Your task to perform on an android device: open chrome privacy settings Image 0: 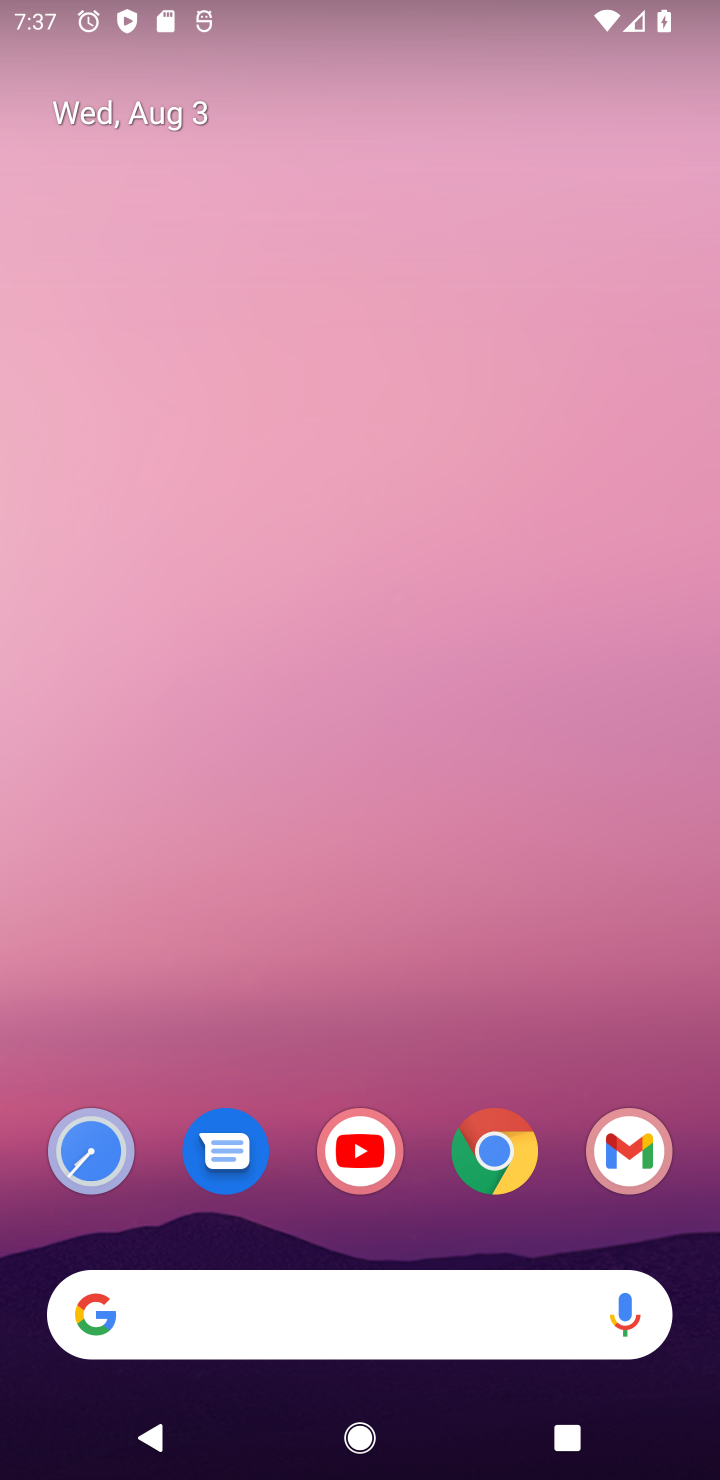
Step 0: click (495, 1154)
Your task to perform on an android device: open chrome privacy settings Image 1: 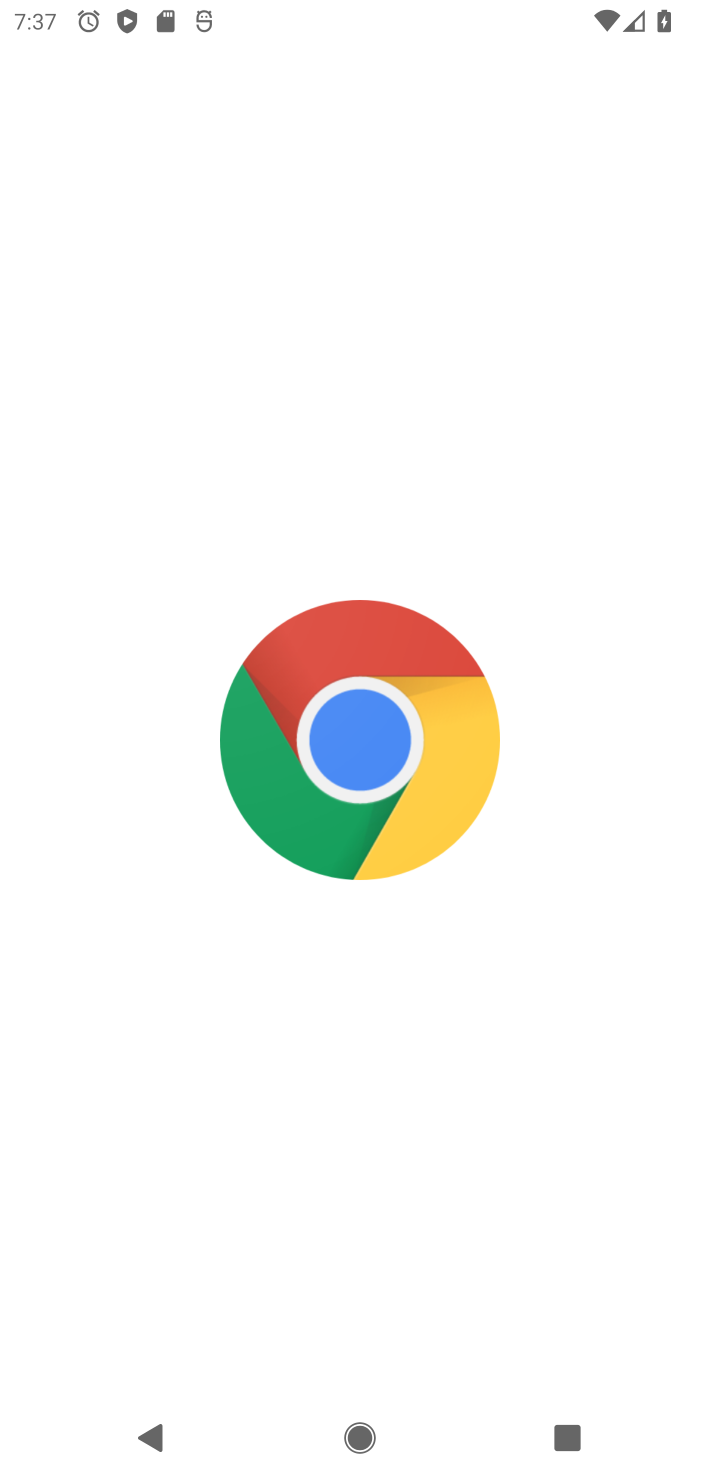
Step 1: click (495, 1156)
Your task to perform on an android device: open chrome privacy settings Image 2: 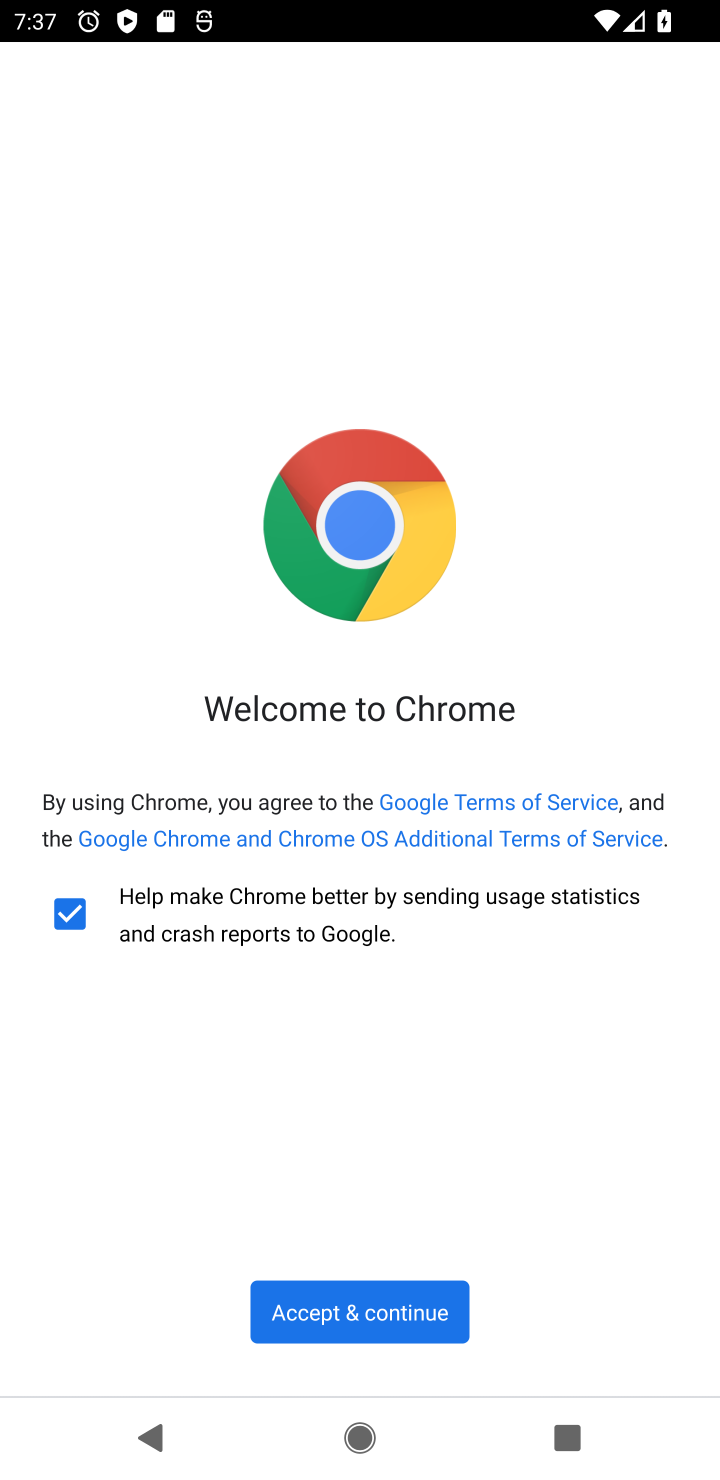
Step 2: click (409, 1314)
Your task to perform on an android device: open chrome privacy settings Image 3: 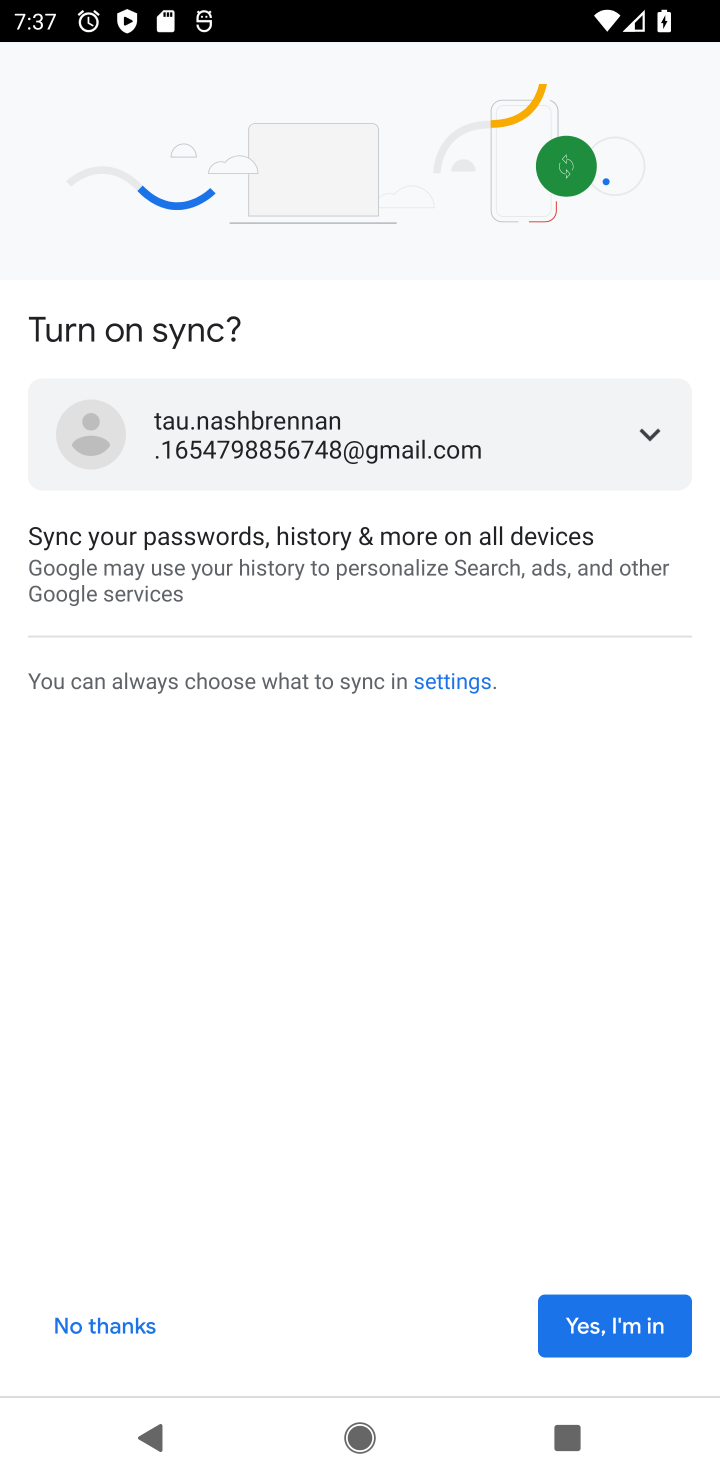
Step 3: click (657, 1317)
Your task to perform on an android device: open chrome privacy settings Image 4: 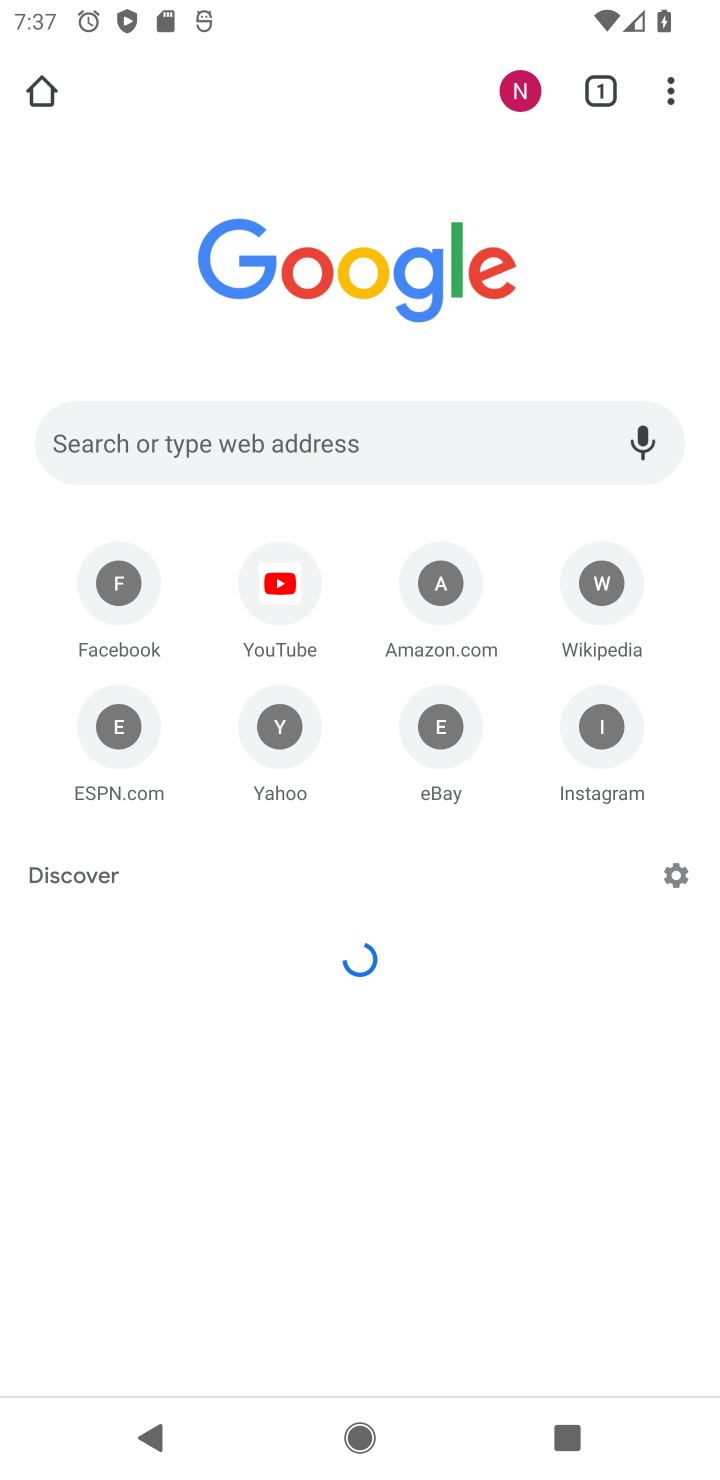
Step 4: drag from (672, 81) to (436, 829)
Your task to perform on an android device: open chrome privacy settings Image 5: 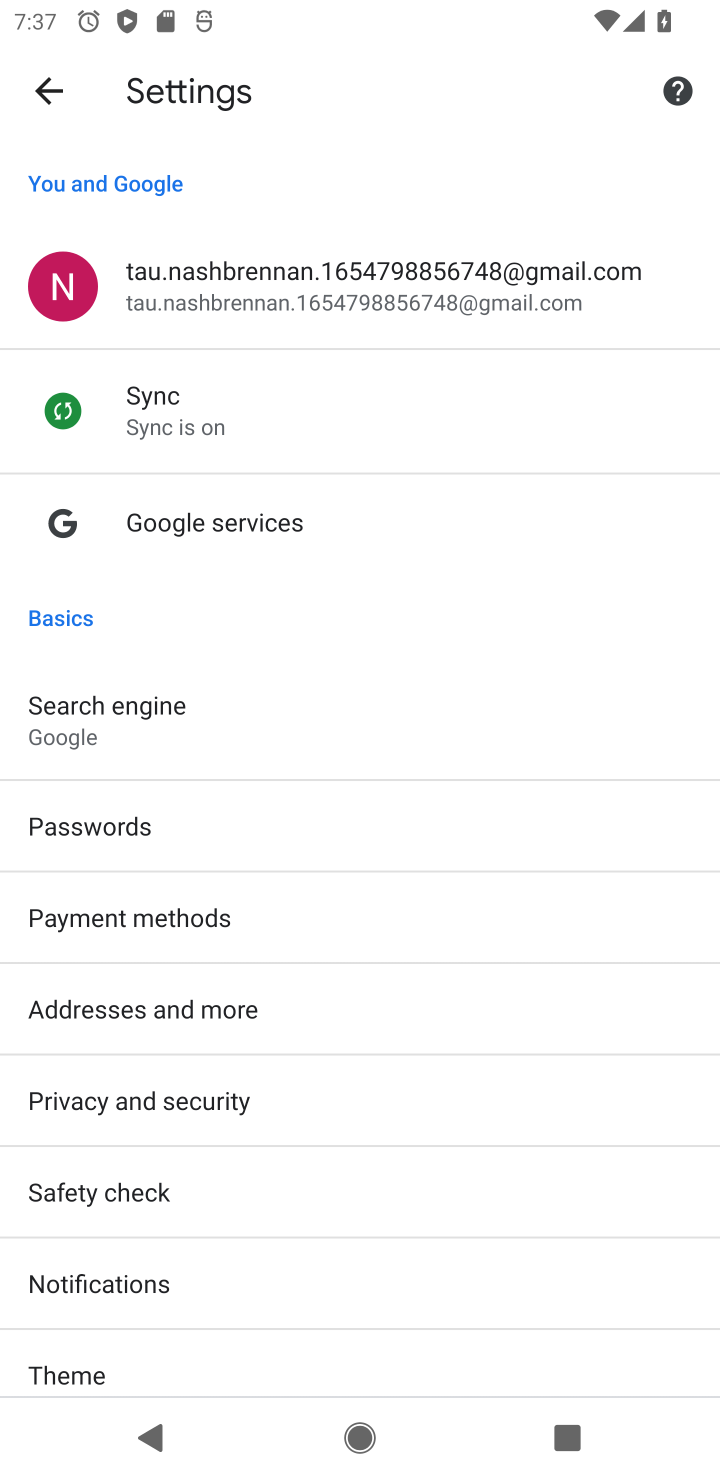
Step 5: drag from (317, 1214) to (569, 363)
Your task to perform on an android device: open chrome privacy settings Image 6: 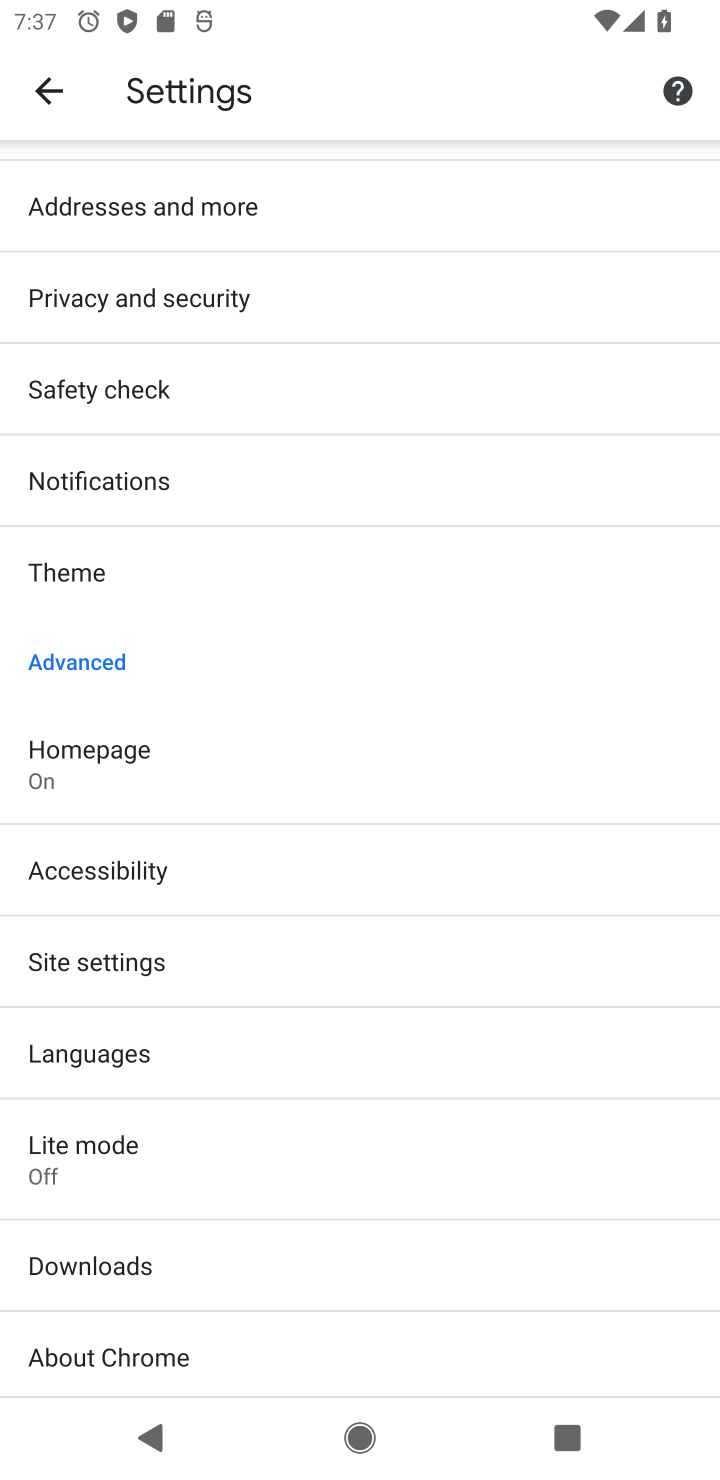
Step 6: click (139, 306)
Your task to perform on an android device: open chrome privacy settings Image 7: 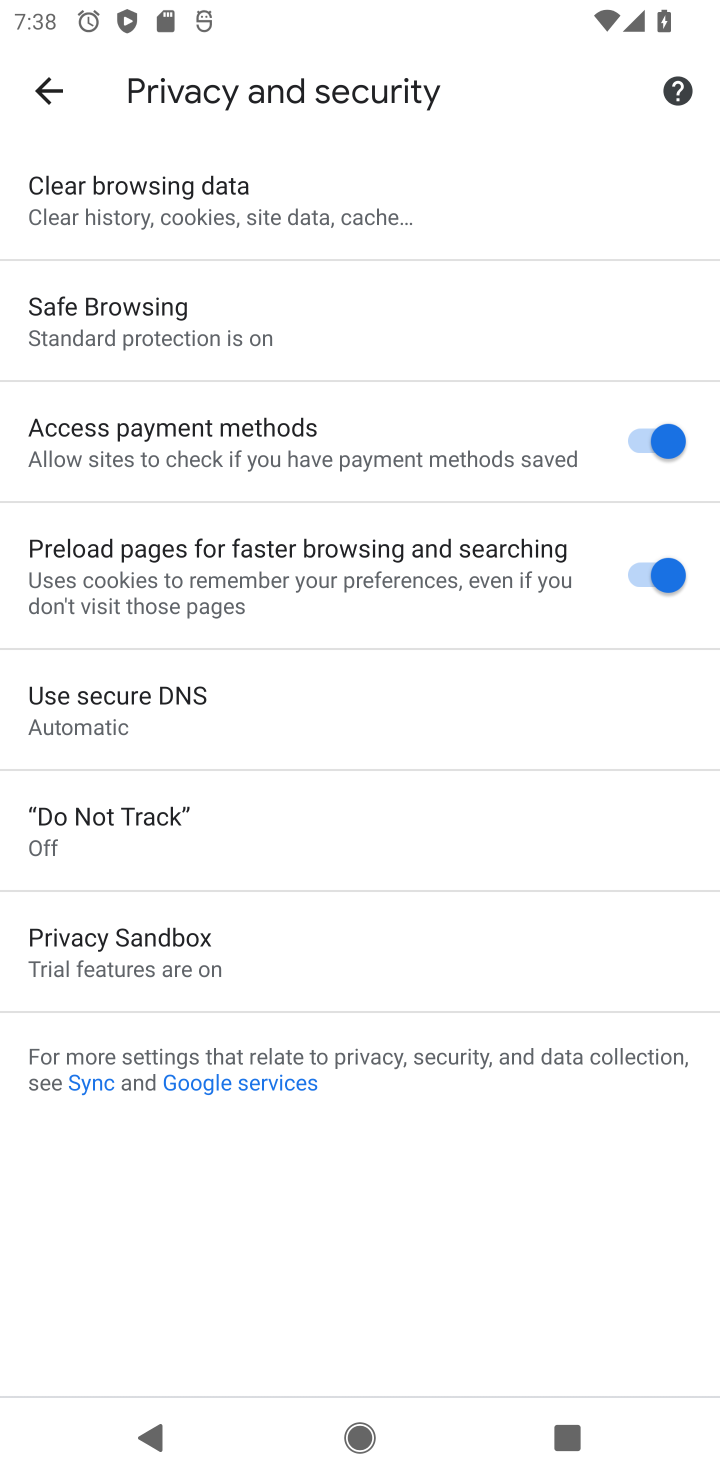
Step 7: task complete